Your task to perform on an android device: Search for sushi restaurants on Maps Image 0: 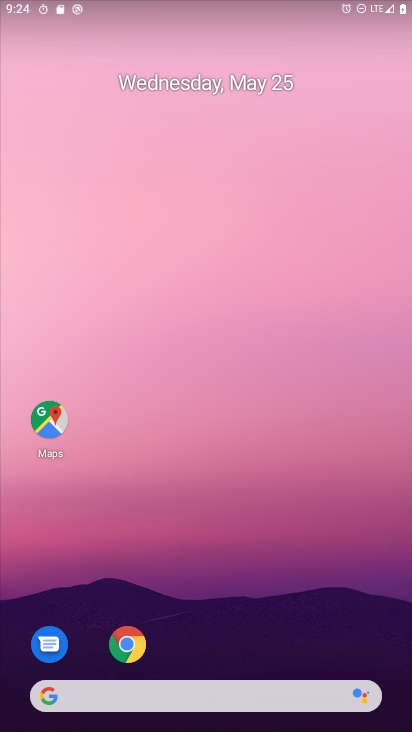
Step 0: drag from (387, 628) to (325, 55)
Your task to perform on an android device: Search for sushi restaurants on Maps Image 1: 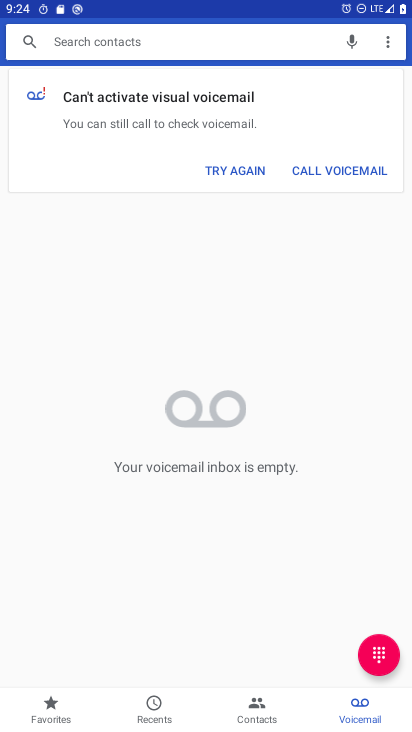
Step 1: press home button
Your task to perform on an android device: Search for sushi restaurants on Maps Image 2: 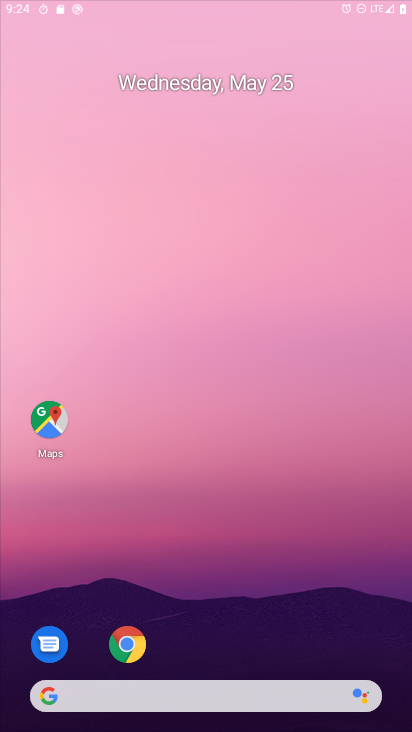
Step 2: drag from (318, 630) to (223, 108)
Your task to perform on an android device: Search for sushi restaurants on Maps Image 3: 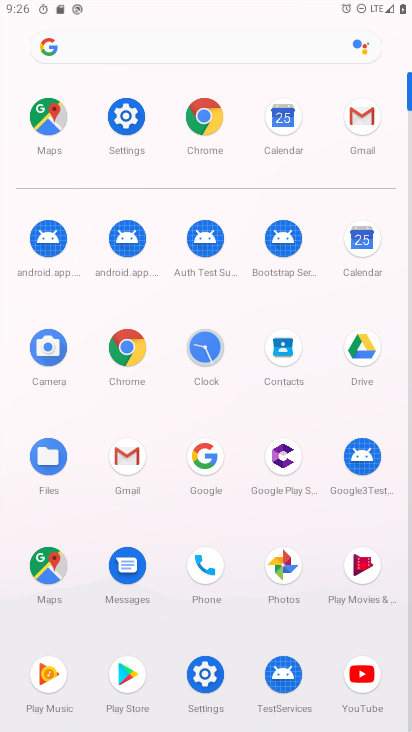
Step 3: click (56, 563)
Your task to perform on an android device: Search for sushi restaurants on Maps Image 4: 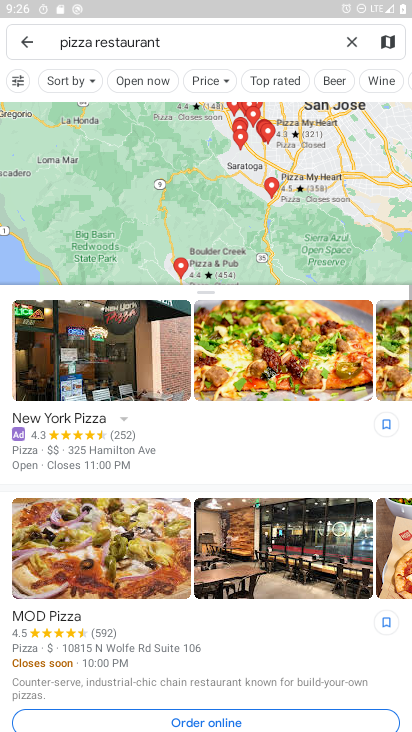
Step 4: click (353, 49)
Your task to perform on an android device: Search for sushi restaurants on Maps Image 5: 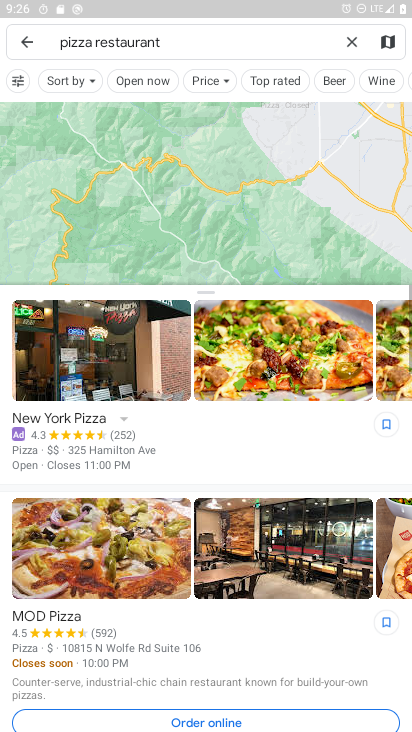
Step 5: click (222, 38)
Your task to perform on an android device: Search for sushi restaurants on Maps Image 6: 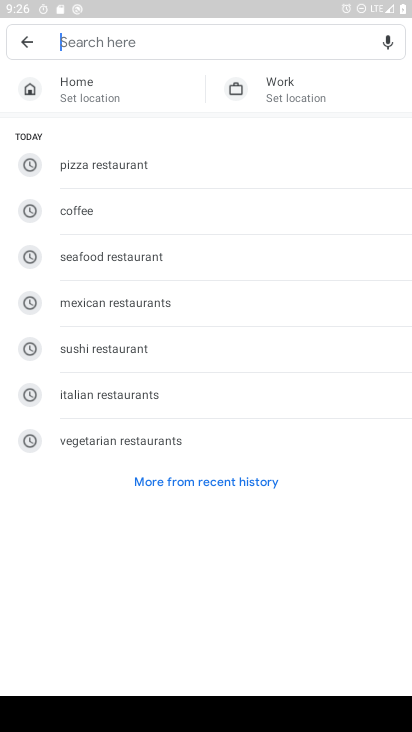
Step 6: click (129, 359)
Your task to perform on an android device: Search for sushi restaurants on Maps Image 7: 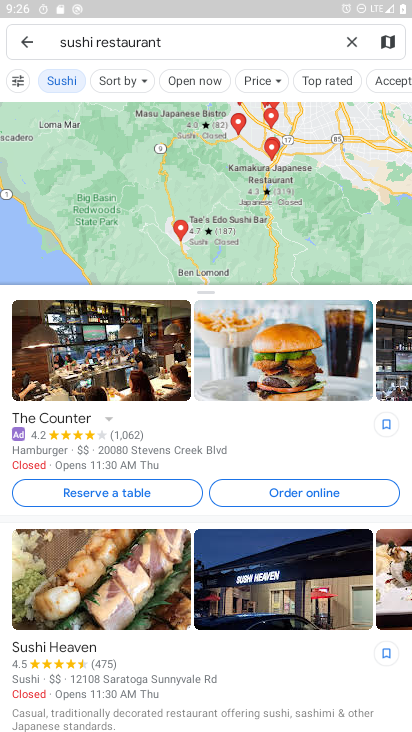
Step 7: task complete